Your task to perform on an android device: turn off priority inbox in the gmail app Image 0: 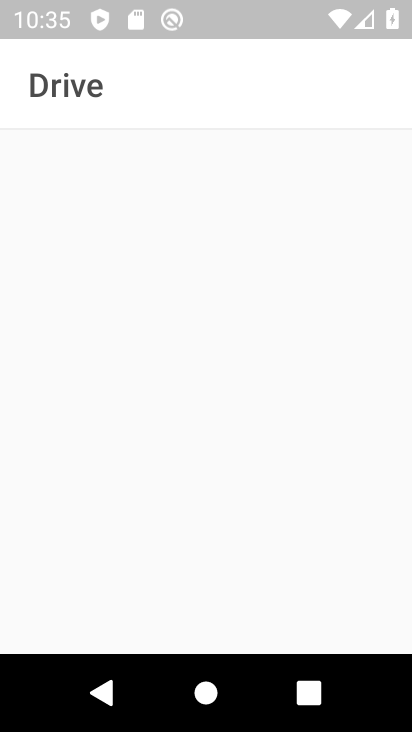
Step 0: press home button
Your task to perform on an android device: turn off priority inbox in the gmail app Image 1: 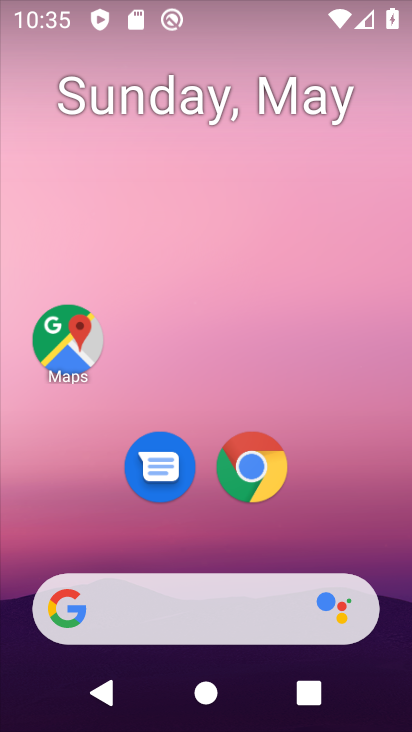
Step 1: drag from (376, 563) to (344, 4)
Your task to perform on an android device: turn off priority inbox in the gmail app Image 2: 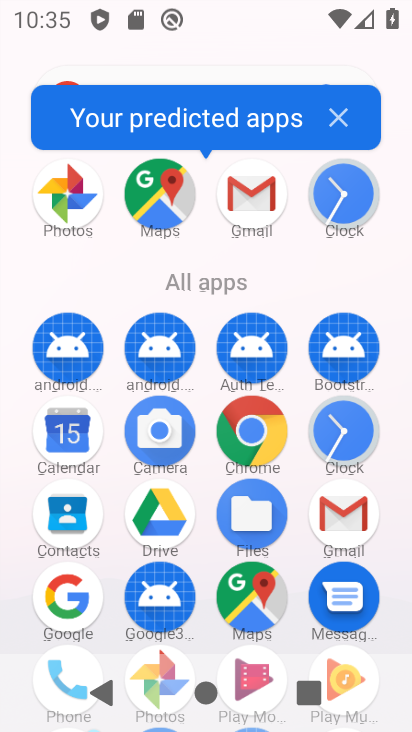
Step 2: click (242, 206)
Your task to perform on an android device: turn off priority inbox in the gmail app Image 3: 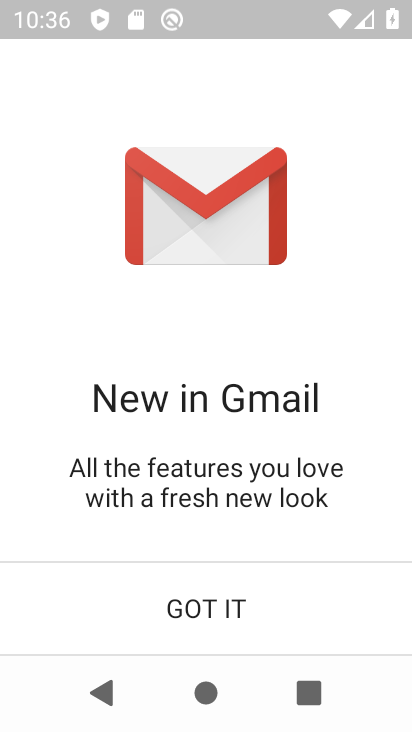
Step 3: click (164, 622)
Your task to perform on an android device: turn off priority inbox in the gmail app Image 4: 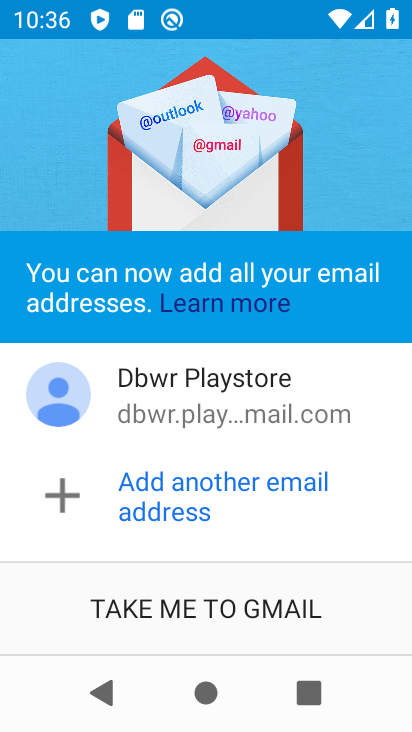
Step 4: click (180, 605)
Your task to perform on an android device: turn off priority inbox in the gmail app Image 5: 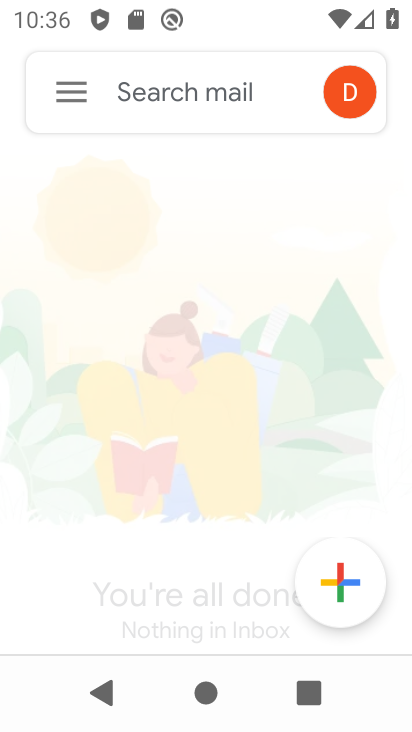
Step 5: click (70, 99)
Your task to perform on an android device: turn off priority inbox in the gmail app Image 6: 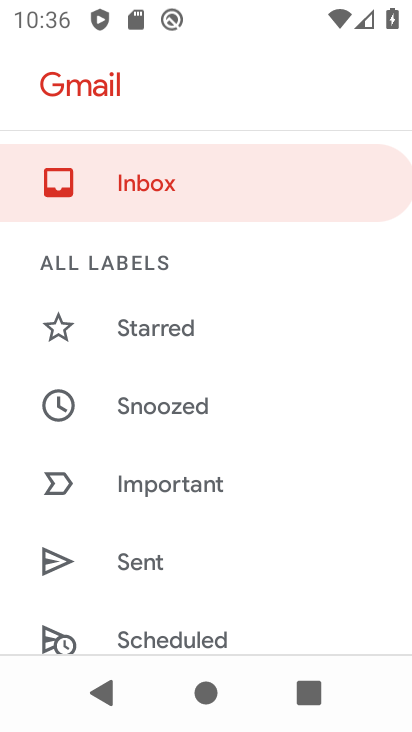
Step 6: drag from (236, 517) to (225, 107)
Your task to perform on an android device: turn off priority inbox in the gmail app Image 7: 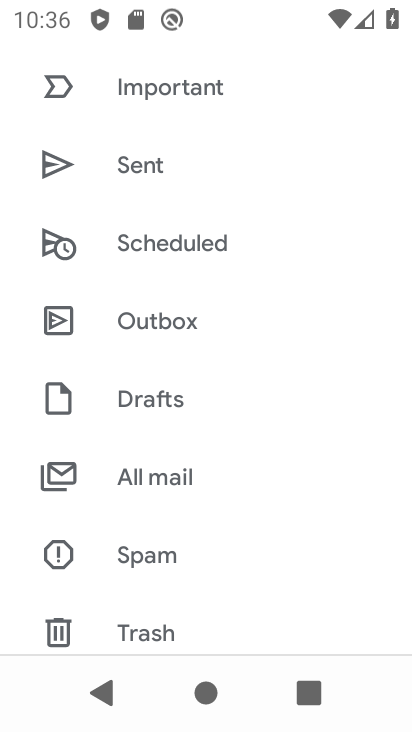
Step 7: drag from (211, 558) to (204, 102)
Your task to perform on an android device: turn off priority inbox in the gmail app Image 8: 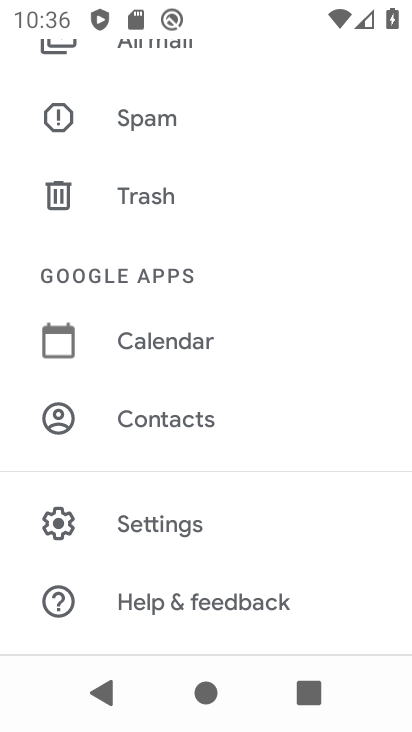
Step 8: click (159, 525)
Your task to perform on an android device: turn off priority inbox in the gmail app Image 9: 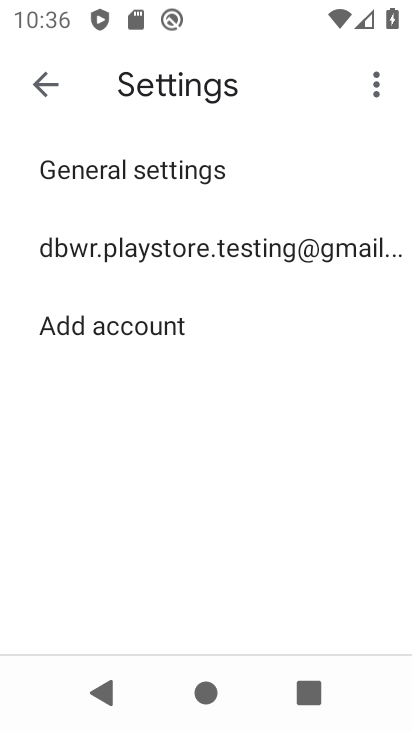
Step 9: click (167, 259)
Your task to perform on an android device: turn off priority inbox in the gmail app Image 10: 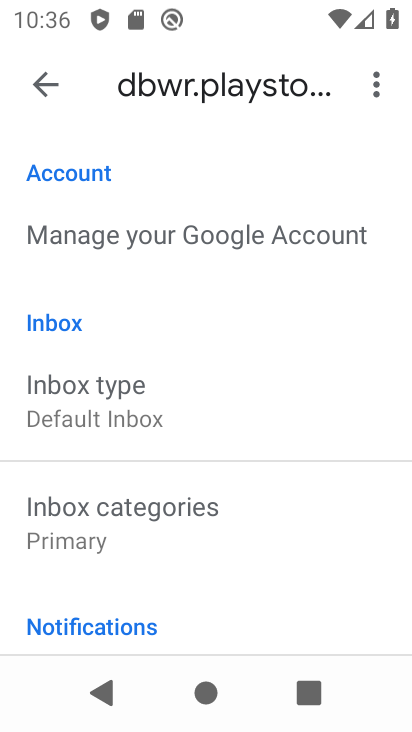
Step 10: click (84, 406)
Your task to perform on an android device: turn off priority inbox in the gmail app Image 11: 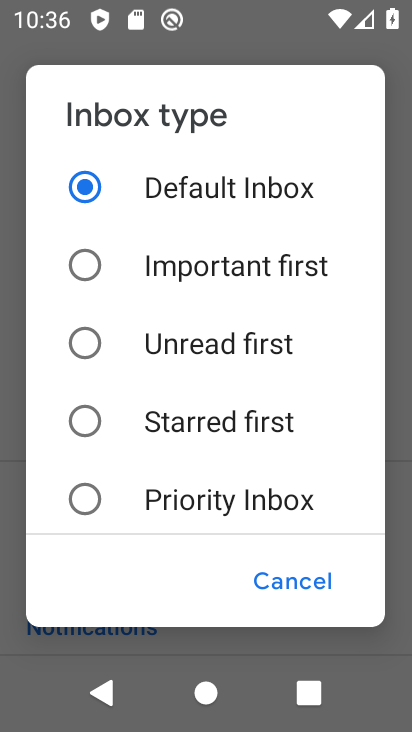
Step 11: task complete